Your task to perform on an android device: Open Google Maps and go to "Timeline" Image 0: 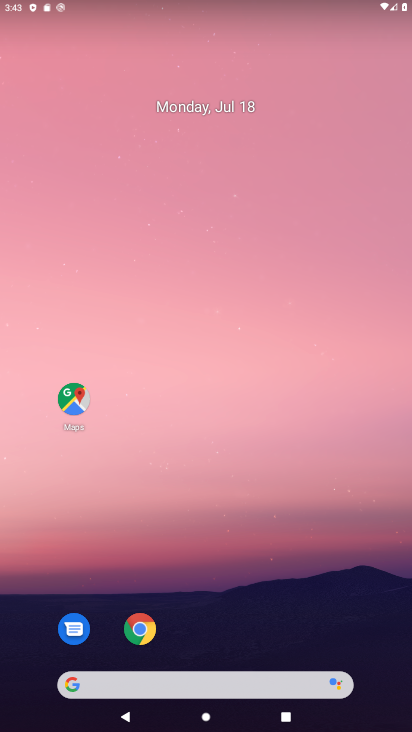
Step 0: drag from (128, 687) to (170, 227)
Your task to perform on an android device: Open Google Maps and go to "Timeline" Image 1: 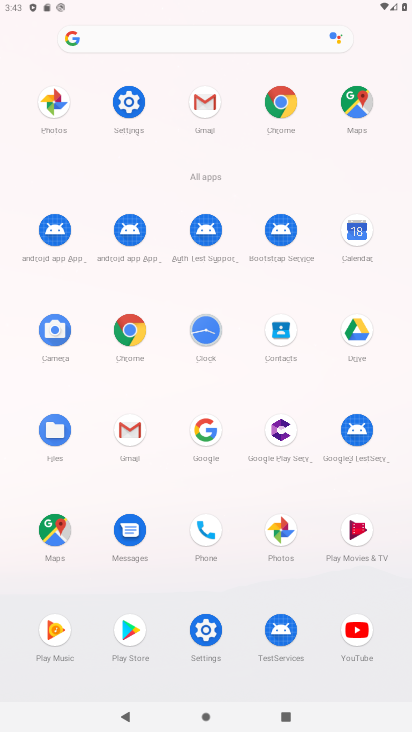
Step 1: click (49, 534)
Your task to perform on an android device: Open Google Maps and go to "Timeline" Image 2: 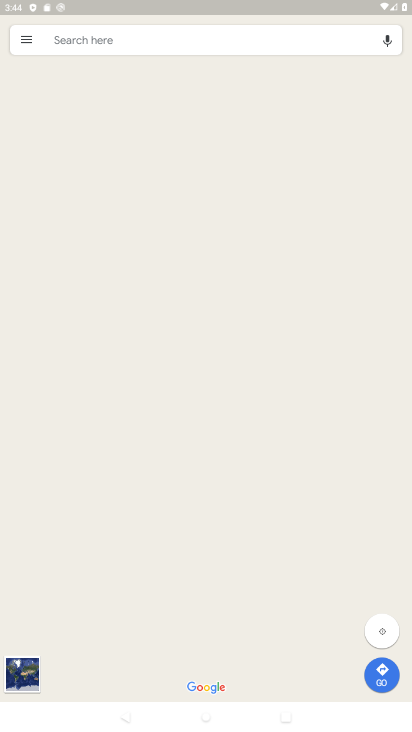
Step 2: click (17, 31)
Your task to perform on an android device: Open Google Maps and go to "Timeline" Image 3: 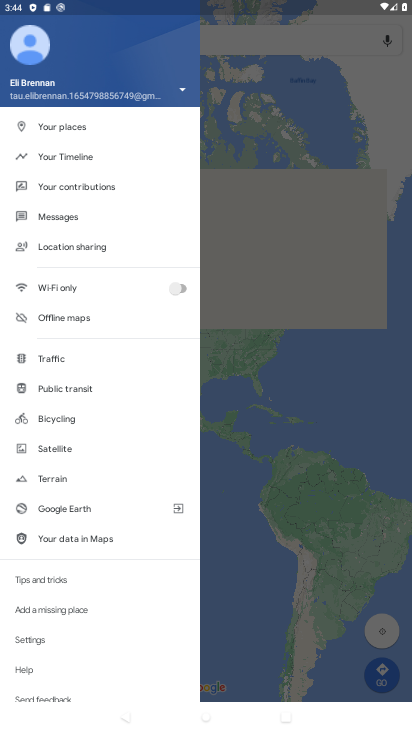
Step 3: click (74, 161)
Your task to perform on an android device: Open Google Maps and go to "Timeline" Image 4: 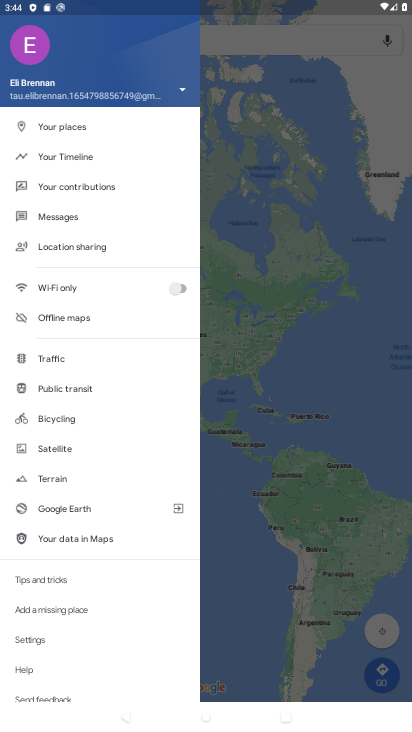
Step 4: click (114, 171)
Your task to perform on an android device: Open Google Maps and go to "Timeline" Image 5: 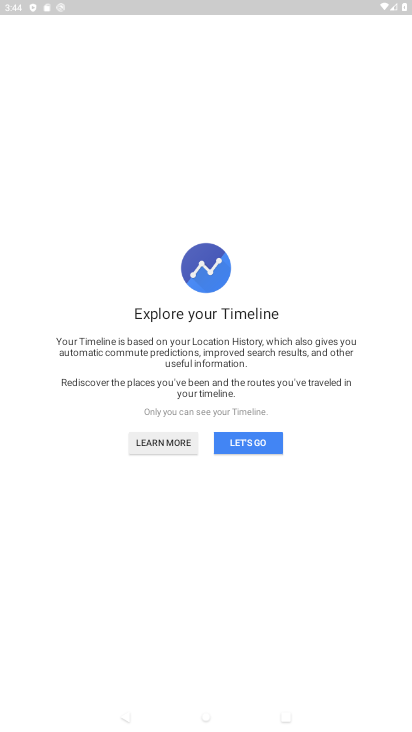
Step 5: click (257, 435)
Your task to perform on an android device: Open Google Maps and go to "Timeline" Image 6: 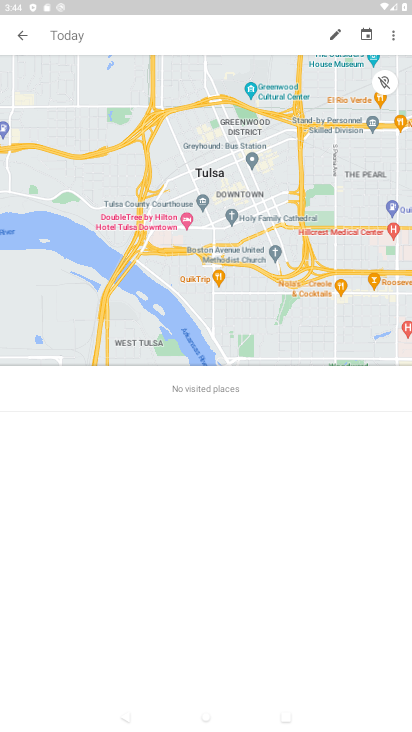
Step 6: task complete